Your task to perform on an android device: open a bookmark in the chrome app Image 0: 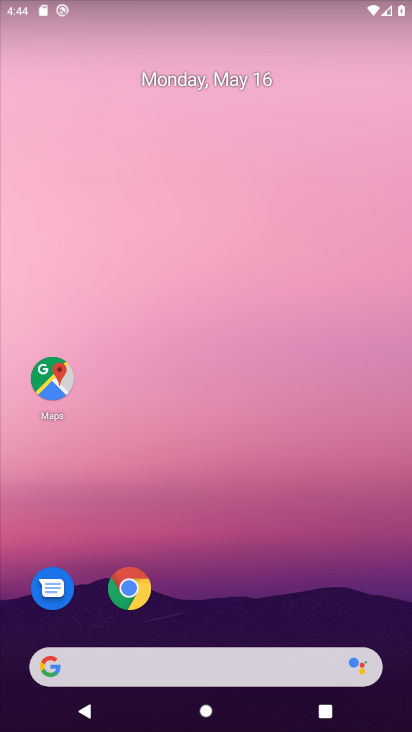
Step 0: click (138, 597)
Your task to perform on an android device: open a bookmark in the chrome app Image 1: 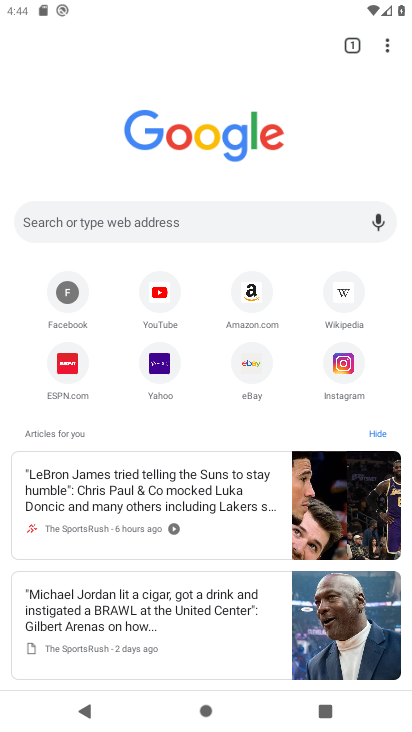
Step 1: click (390, 59)
Your task to perform on an android device: open a bookmark in the chrome app Image 2: 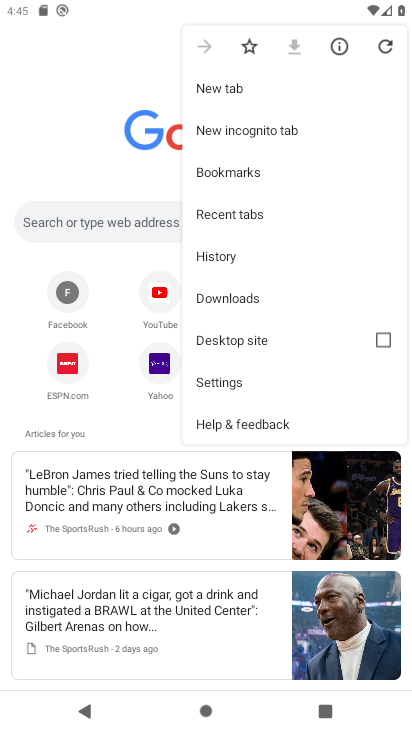
Step 2: click (254, 181)
Your task to perform on an android device: open a bookmark in the chrome app Image 3: 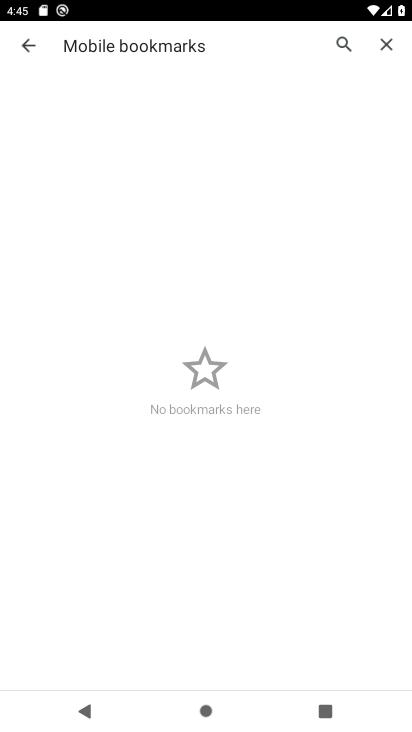
Step 3: task complete